Your task to perform on an android device: Check the weather Image 0: 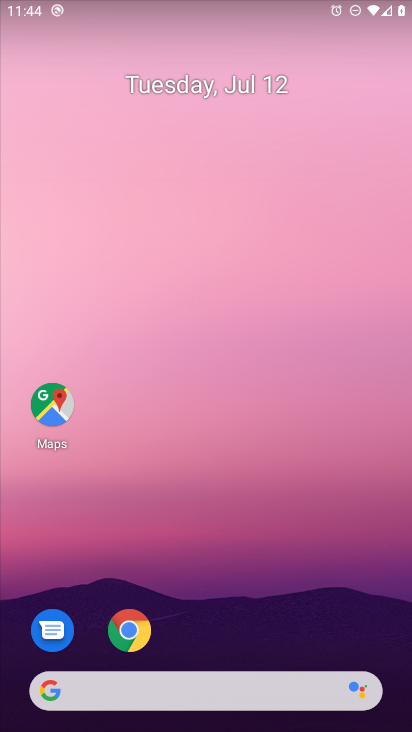
Step 0: press home button
Your task to perform on an android device: Check the weather Image 1: 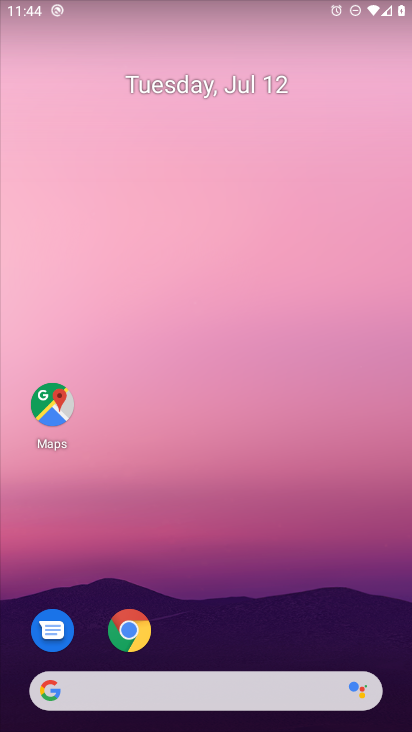
Step 1: click (151, 691)
Your task to perform on an android device: Check the weather Image 2: 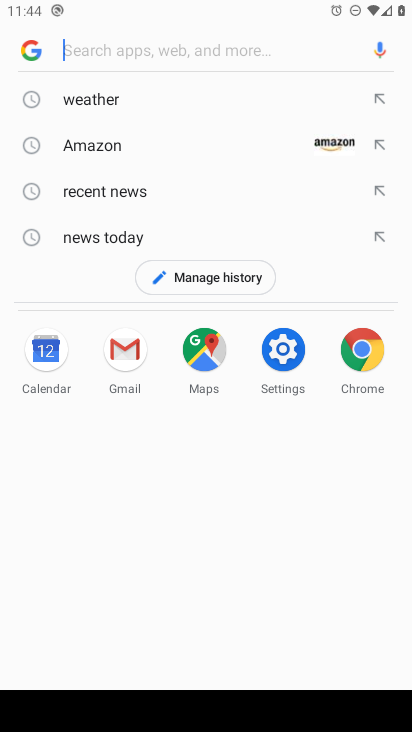
Step 2: click (105, 97)
Your task to perform on an android device: Check the weather Image 3: 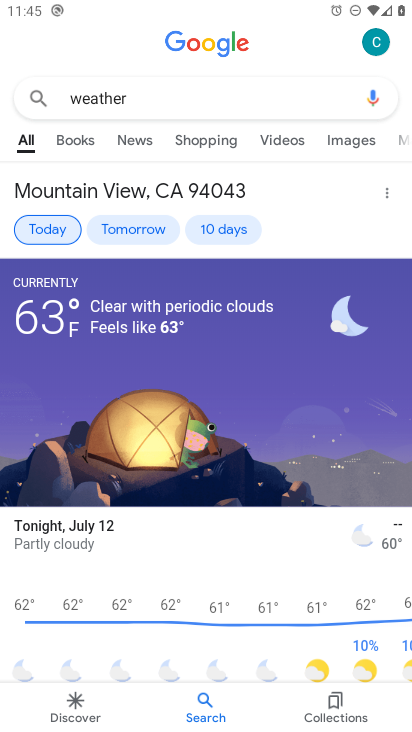
Step 3: task complete